Your task to perform on an android device: Open calendar and show me the third week of next month Image 0: 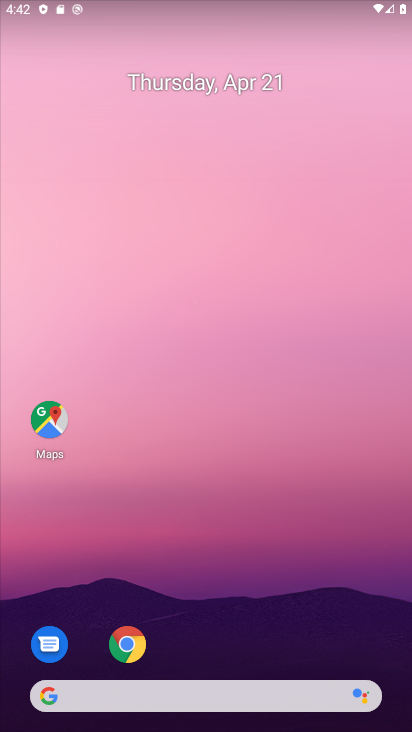
Step 0: drag from (243, 636) to (235, 233)
Your task to perform on an android device: Open calendar and show me the third week of next month Image 1: 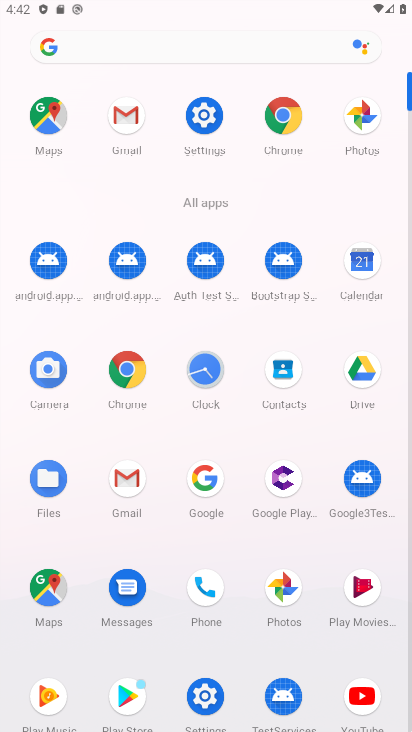
Step 1: click (372, 263)
Your task to perform on an android device: Open calendar and show me the third week of next month Image 2: 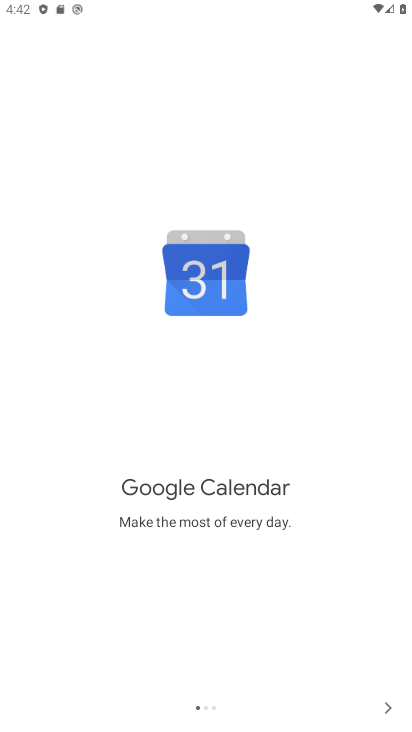
Step 2: click (386, 704)
Your task to perform on an android device: Open calendar and show me the third week of next month Image 3: 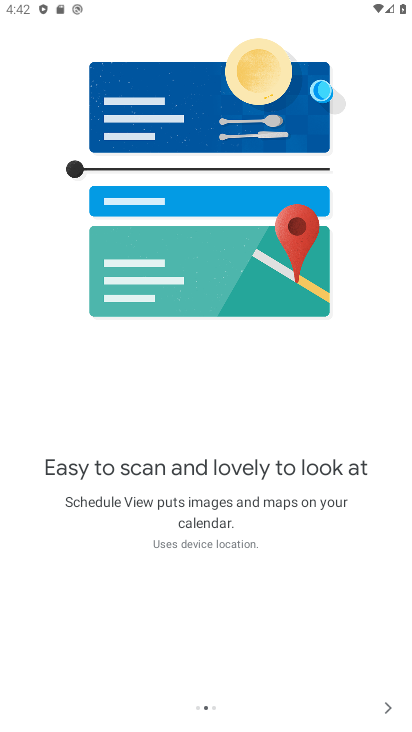
Step 3: click (386, 704)
Your task to perform on an android device: Open calendar and show me the third week of next month Image 4: 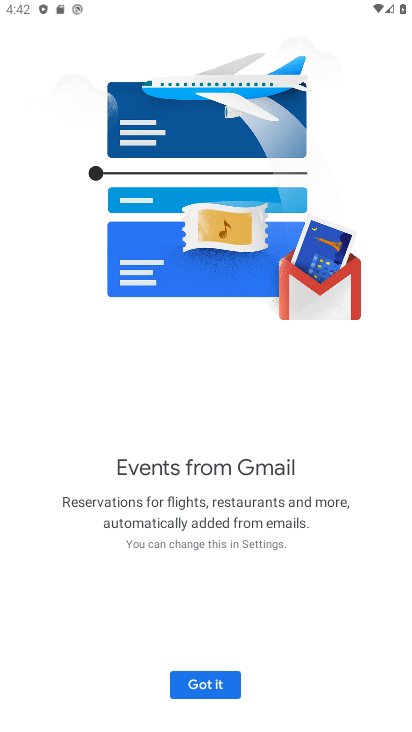
Step 4: click (217, 679)
Your task to perform on an android device: Open calendar and show me the third week of next month Image 5: 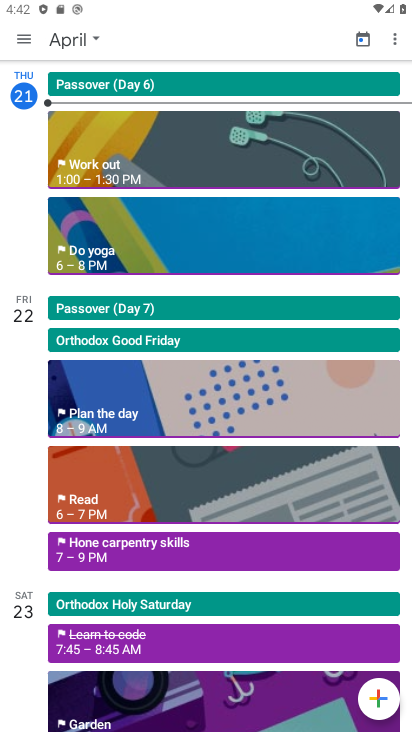
Step 5: click (67, 33)
Your task to perform on an android device: Open calendar and show me the third week of next month Image 6: 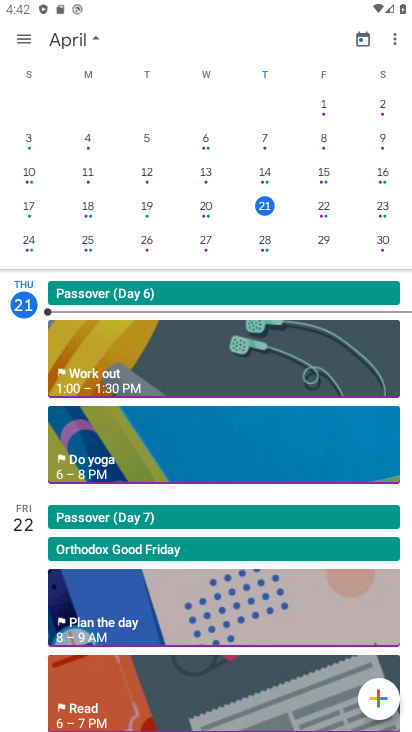
Step 6: drag from (375, 207) to (28, 200)
Your task to perform on an android device: Open calendar and show me the third week of next month Image 7: 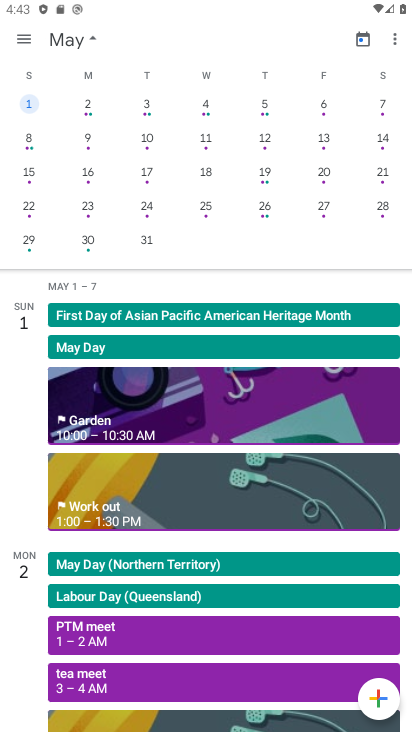
Step 7: click (89, 177)
Your task to perform on an android device: Open calendar and show me the third week of next month Image 8: 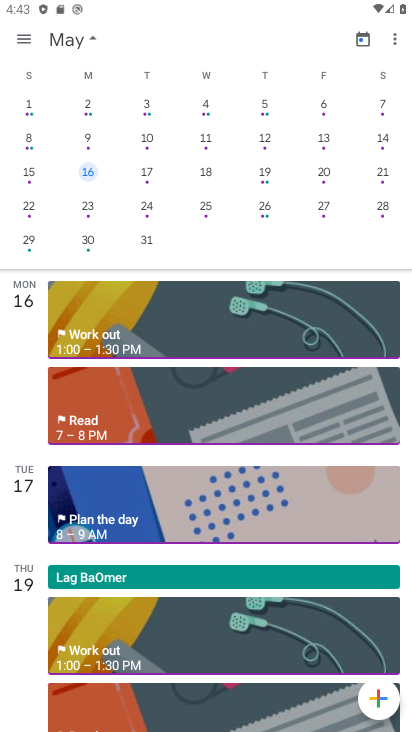
Step 8: task complete